Your task to perform on an android device: Open Google Maps and go to "Timeline" Image 0: 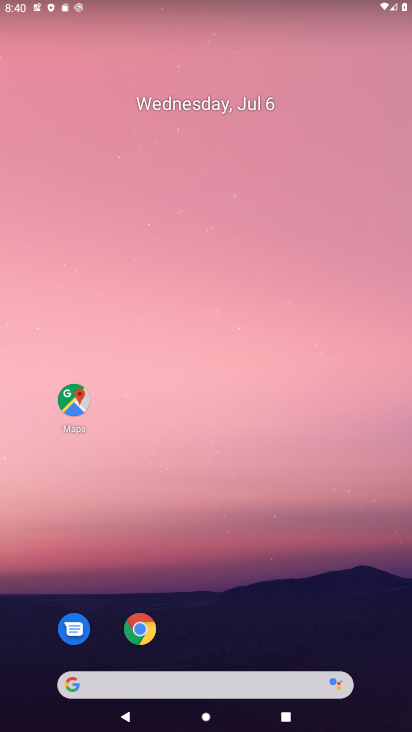
Step 0: drag from (198, 591) to (215, 99)
Your task to perform on an android device: Open Google Maps and go to "Timeline" Image 1: 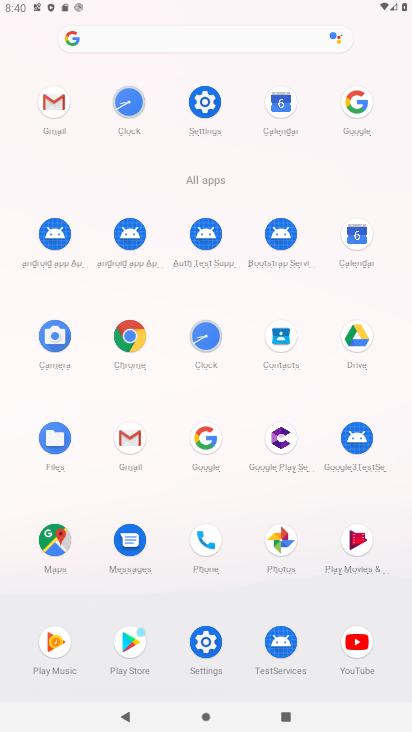
Step 1: click (56, 542)
Your task to perform on an android device: Open Google Maps and go to "Timeline" Image 2: 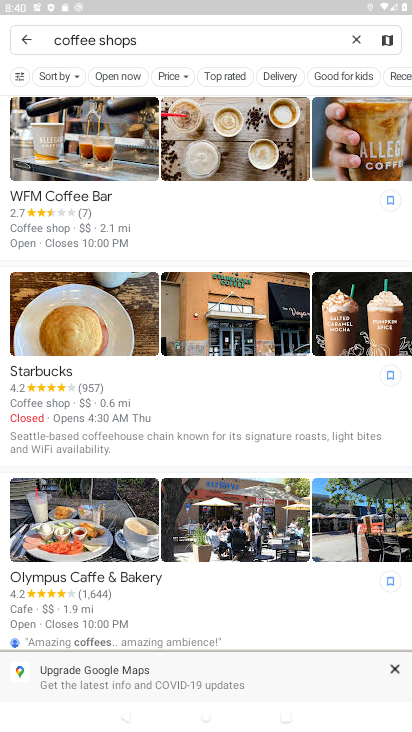
Step 2: press back button
Your task to perform on an android device: Open Google Maps and go to "Timeline" Image 3: 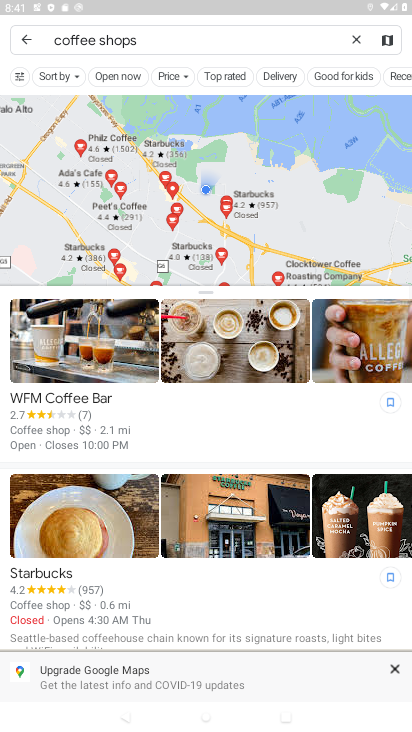
Step 3: press back button
Your task to perform on an android device: Open Google Maps and go to "Timeline" Image 4: 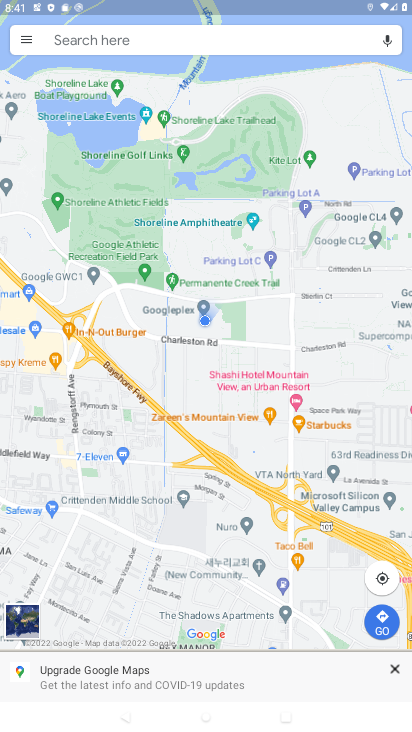
Step 4: click (22, 40)
Your task to perform on an android device: Open Google Maps and go to "Timeline" Image 5: 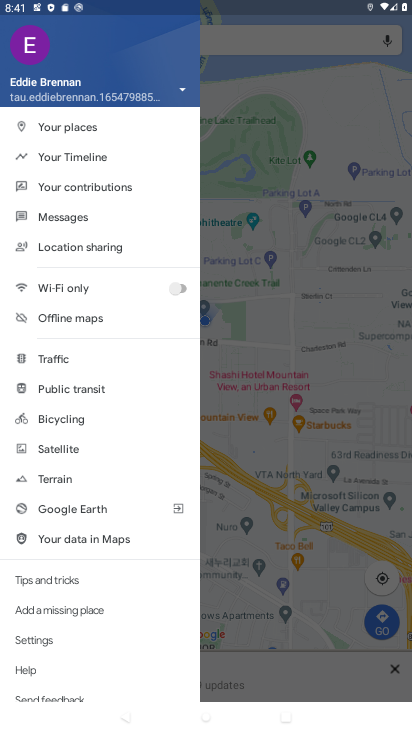
Step 5: click (93, 157)
Your task to perform on an android device: Open Google Maps and go to "Timeline" Image 6: 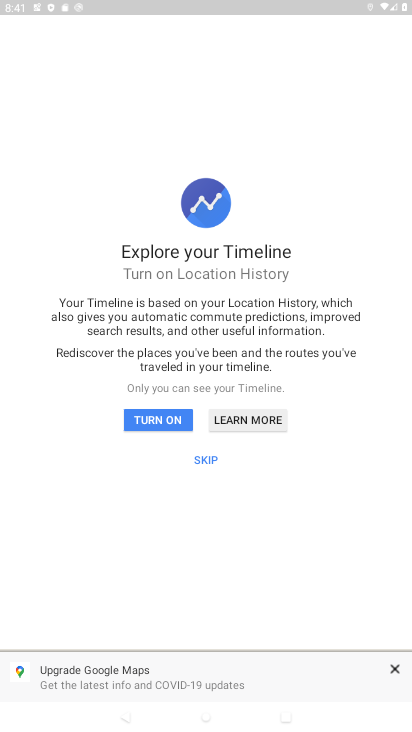
Step 6: click (212, 459)
Your task to perform on an android device: Open Google Maps and go to "Timeline" Image 7: 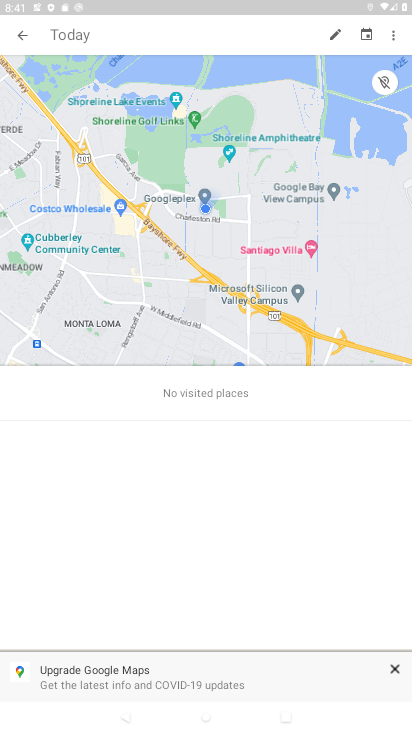
Step 7: task complete